Your task to perform on an android device: check data usage Image 0: 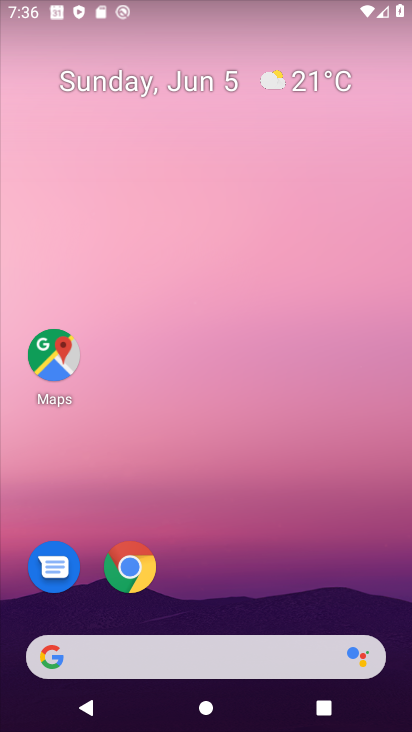
Step 0: drag from (219, 639) to (288, 143)
Your task to perform on an android device: check data usage Image 1: 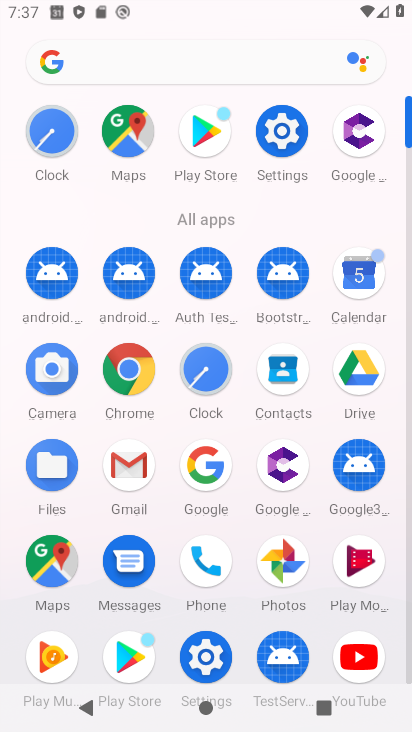
Step 1: click (293, 130)
Your task to perform on an android device: check data usage Image 2: 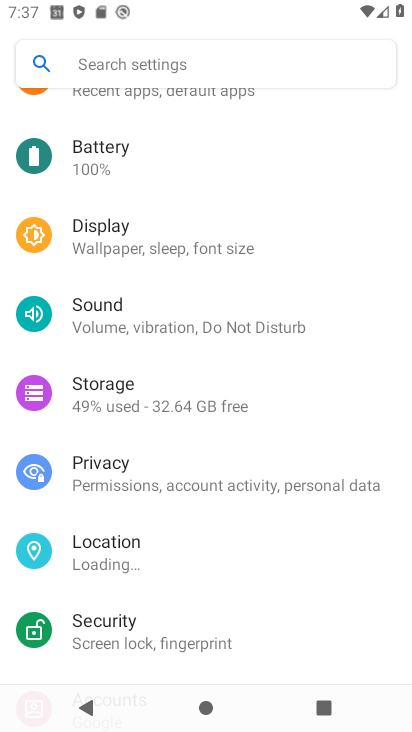
Step 2: drag from (213, 658) to (227, 287)
Your task to perform on an android device: check data usage Image 3: 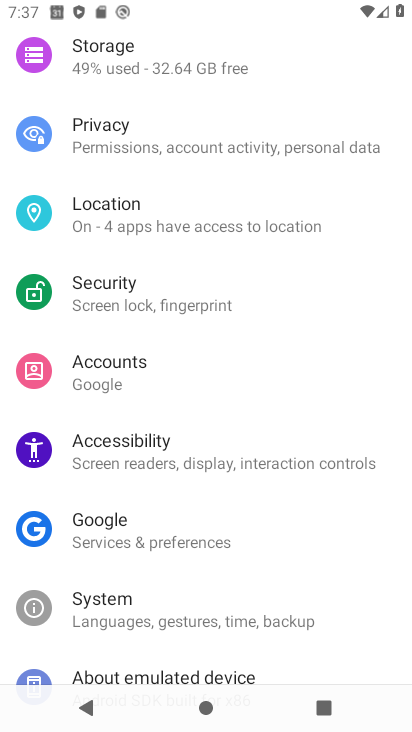
Step 3: drag from (182, 85) to (239, 570)
Your task to perform on an android device: check data usage Image 4: 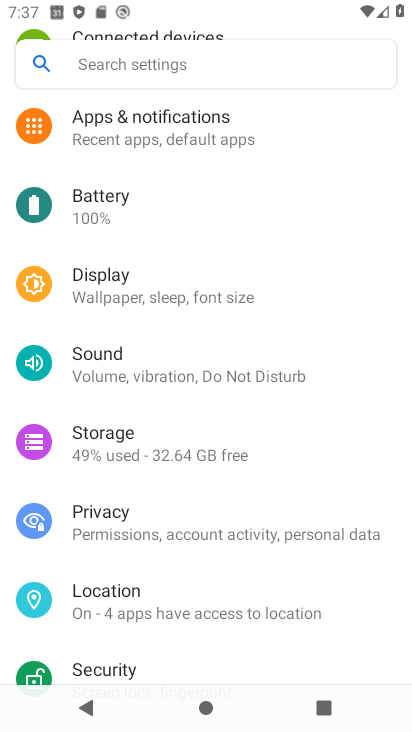
Step 4: drag from (156, 109) to (241, 527)
Your task to perform on an android device: check data usage Image 5: 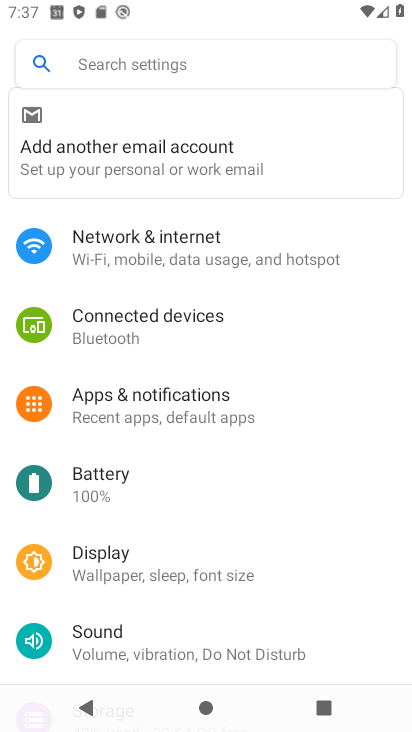
Step 5: click (140, 246)
Your task to perform on an android device: check data usage Image 6: 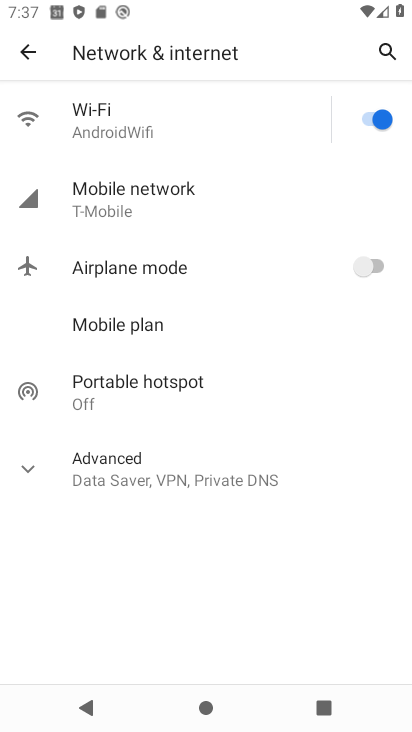
Step 6: click (113, 204)
Your task to perform on an android device: check data usage Image 7: 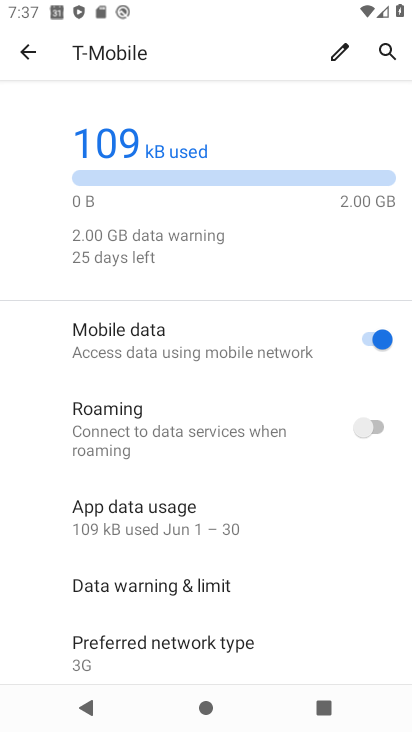
Step 7: task complete